Your task to perform on an android device: toggle sleep mode Image 0: 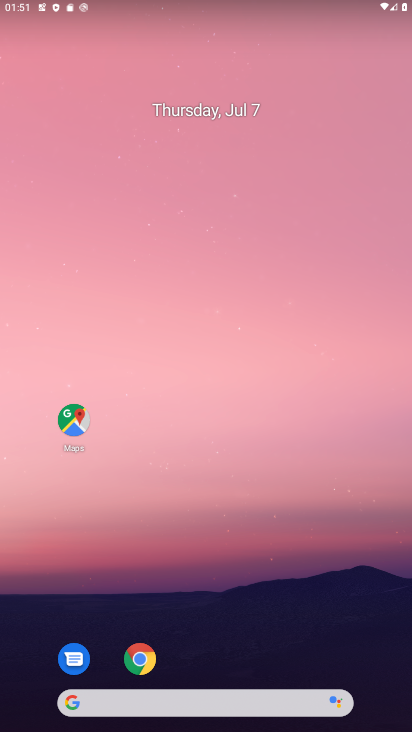
Step 0: drag from (249, 655) to (270, 133)
Your task to perform on an android device: toggle sleep mode Image 1: 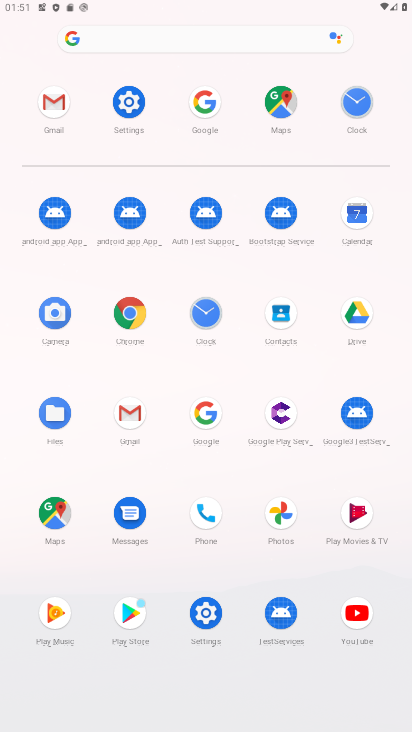
Step 1: click (133, 93)
Your task to perform on an android device: toggle sleep mode Image 2: 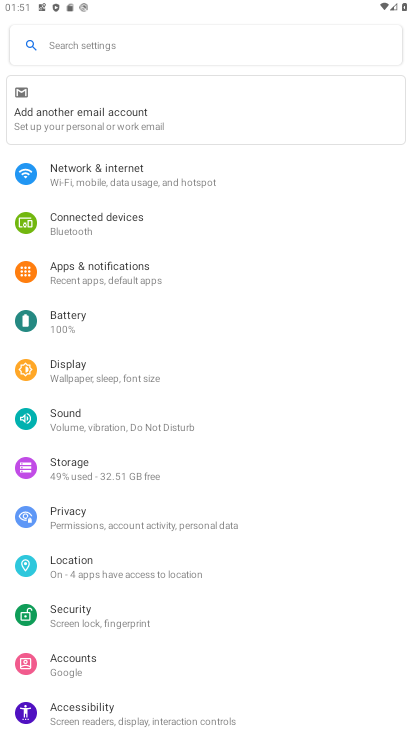
Step 2: click (108, 374)
Your task to perform on an android device: toggle sleep mode Image 3: 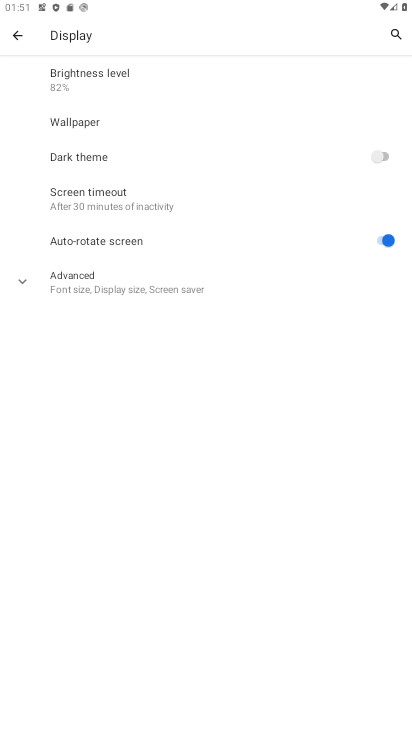
Step 3: click (147, 205)
Your task to perform on an android device: toggle sleep mode Image 4: 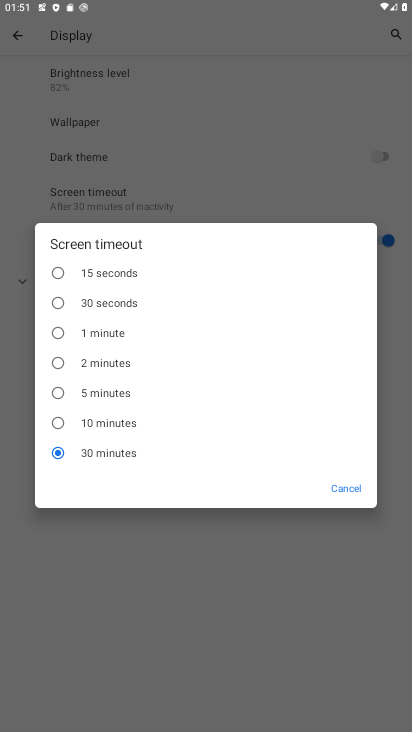
Step 4: click (59, 420)
Your task to perform on an android device: toggle sleep mode Image 5: 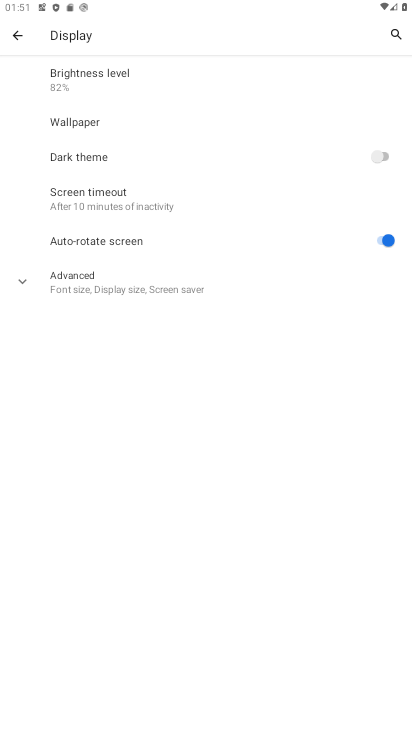
Step 5: task complete